Your task to perform on an android device: Turn on the flashlight Image 0: 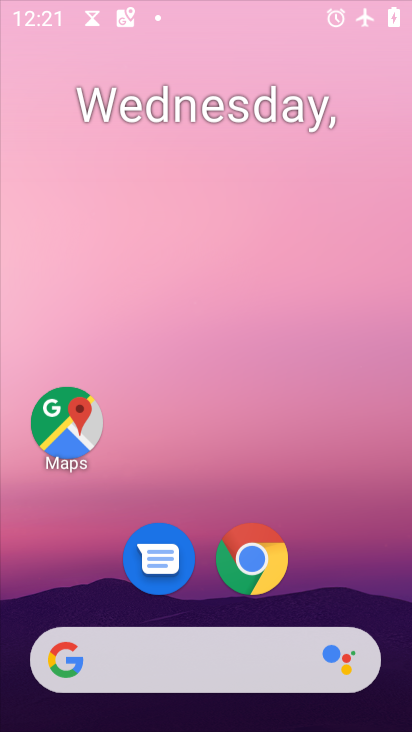
Step 0: click (311, 17)
Your task to perform on an android device: Turn on the flashlight Image 1: 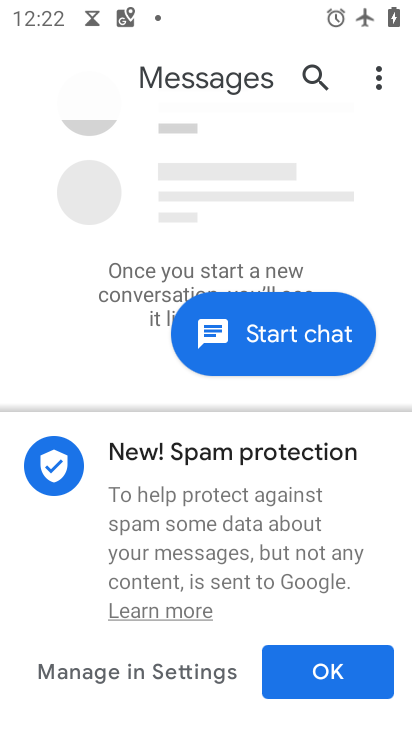
Step 1: press home button
Your task to perform on an android device: Turn on the flashlight Image 2: 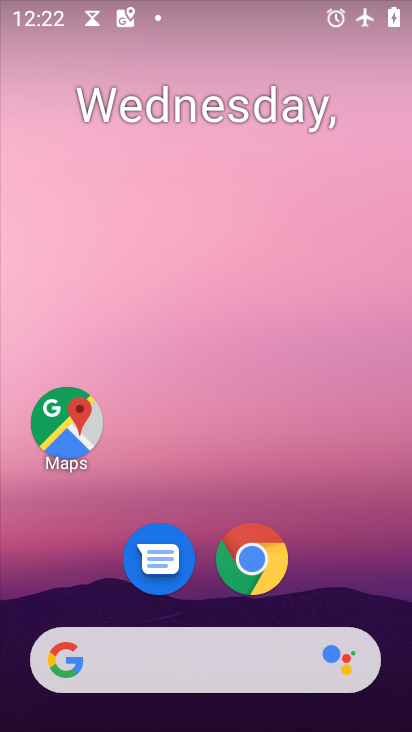
Step 2: drag from (331, 596) to (325, 11)
Your task to perform on an android device: Turn on the flashlight Image 3: 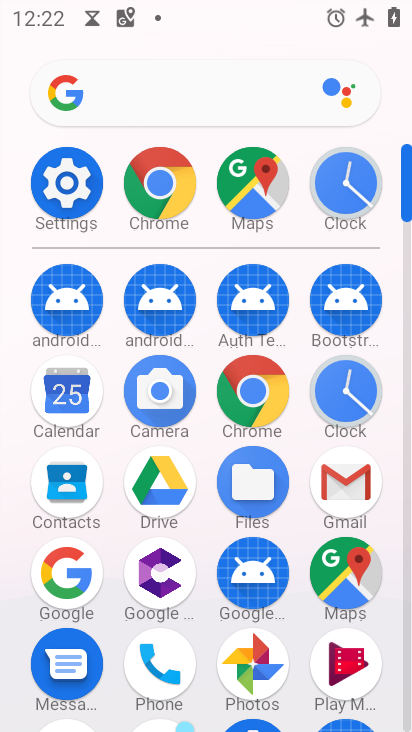
Step 3: click (51, 205)
Your task to perform on an android device: Turn on the flashlight Image 4: 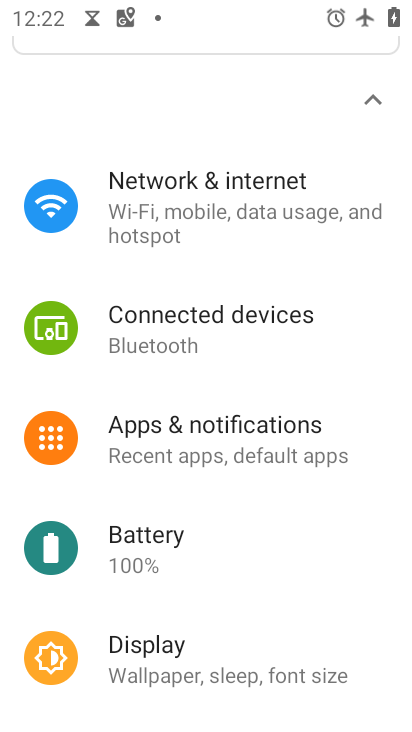
Step 4: task complete